Your task to perform on an android device: open wifi settings Image 0: 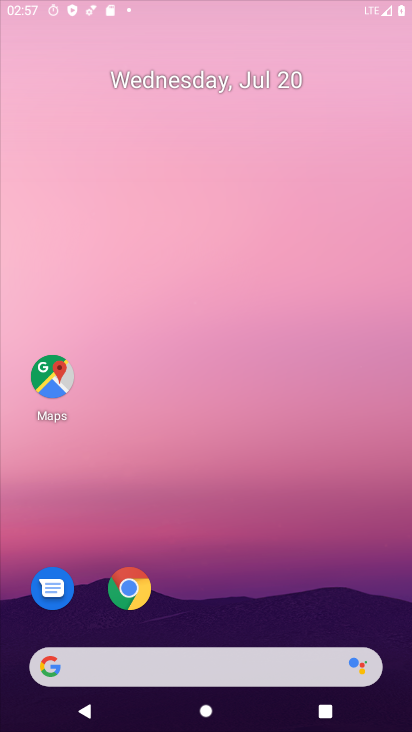
Step 0: drag from (208, 572) to (1, 56)
Your task to perform on an android device: open wifi settings Image 1: 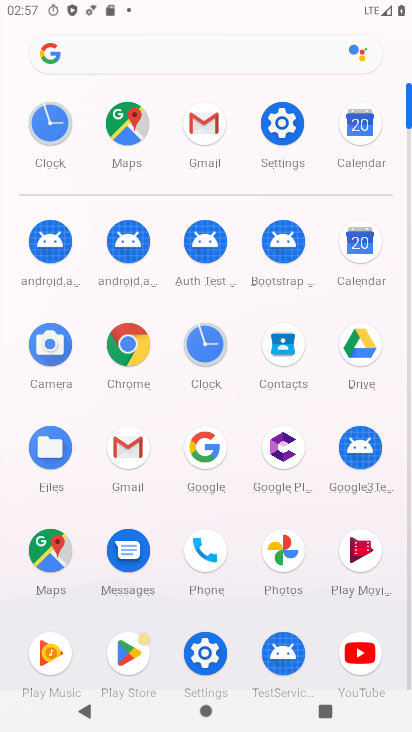
Step 1: click (271, 121)
Your task to perform on an android device: open wifi settings Image 2: 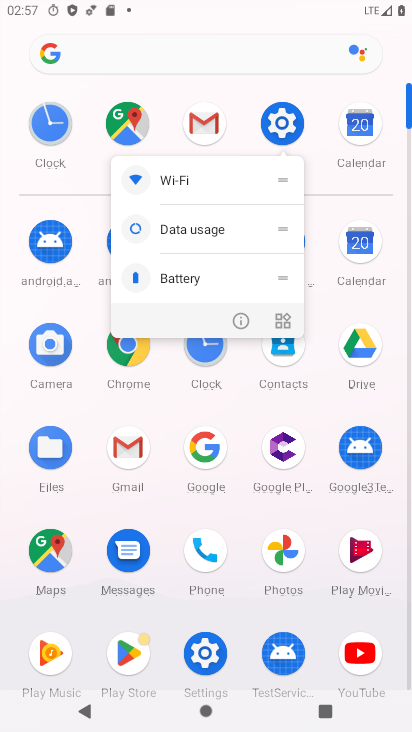
Step 2: click (241, 318)
Your task to perform on an android device: open wifi settings Image 3: 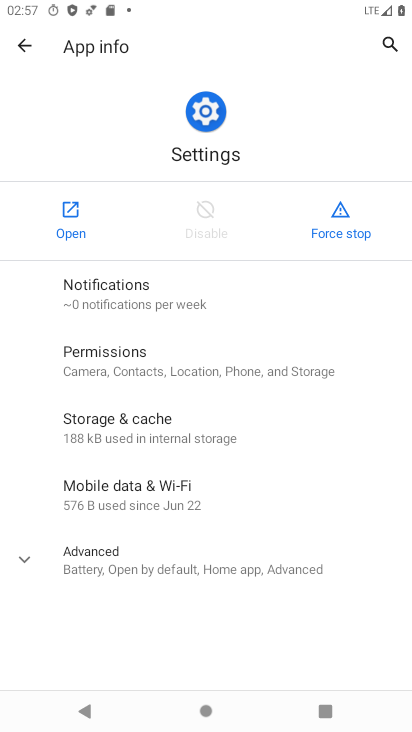
Step 3: click (84, 217)
Your task to perform on an android device: open wifi settings Image 4: 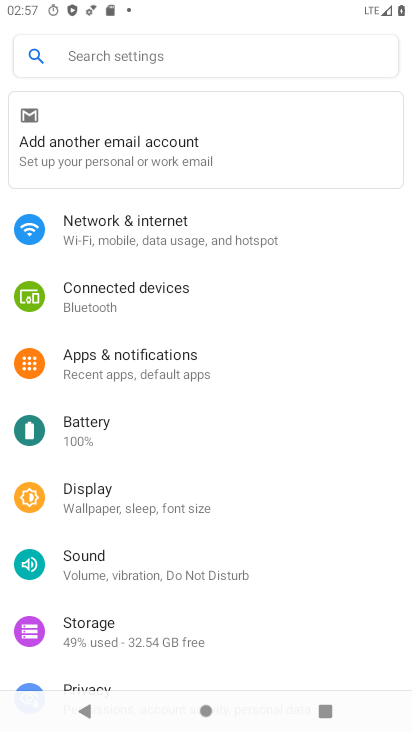
Step 4: click (126, 225)
Your task to perform on an android device: open wifi settings Image 5: 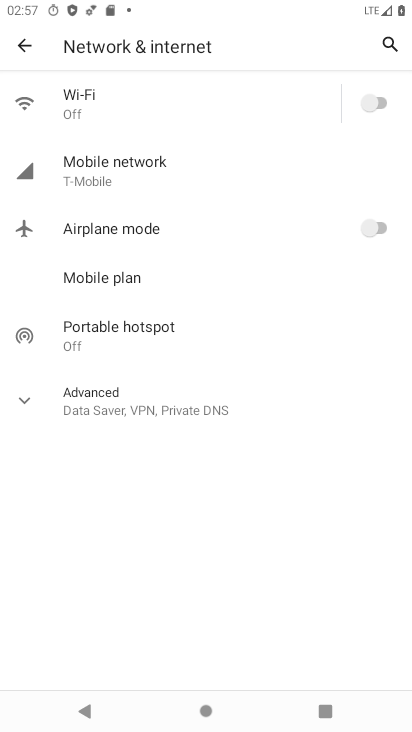
Step 5: click (187, 101)
Your task to perform on an android device: open wifi settings Image 6: 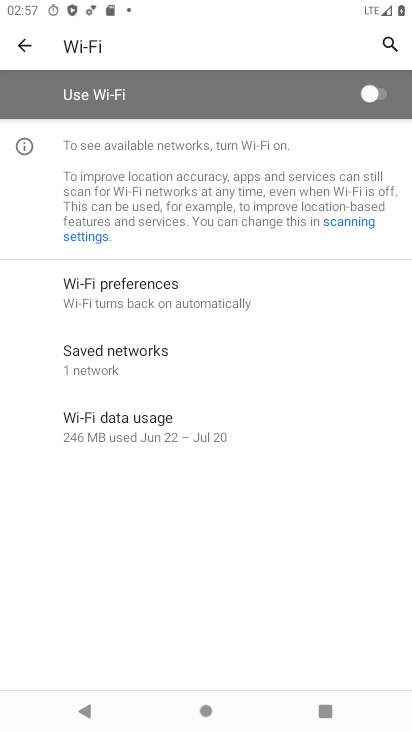
Step 6: task complete